Your task to perform on an android device: Go to network settings Image 0: 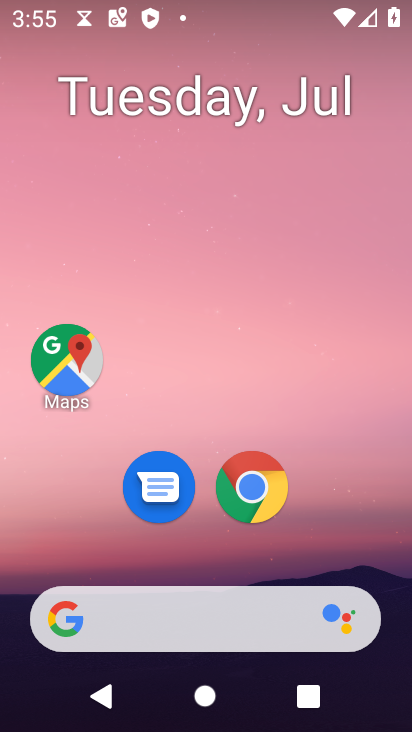
Step 0: drag from (175, 556) to (280, 44)
Your task to perform on an android device: Go to network settings Image 1: 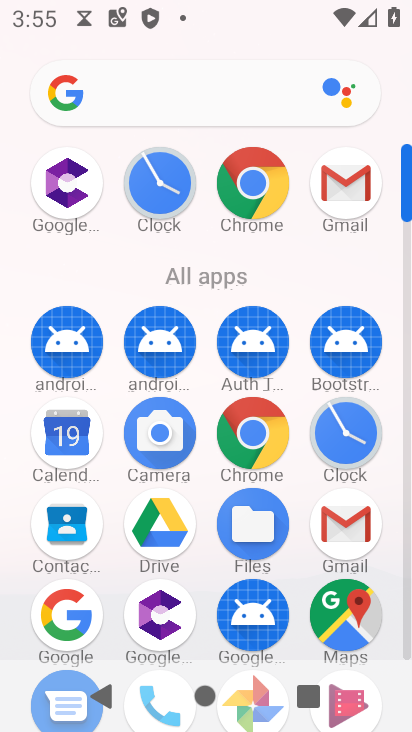
Step 1: drag from (184, 593) to (267, 135)
Your task to perform on an android device: Go to network settings Image 2: 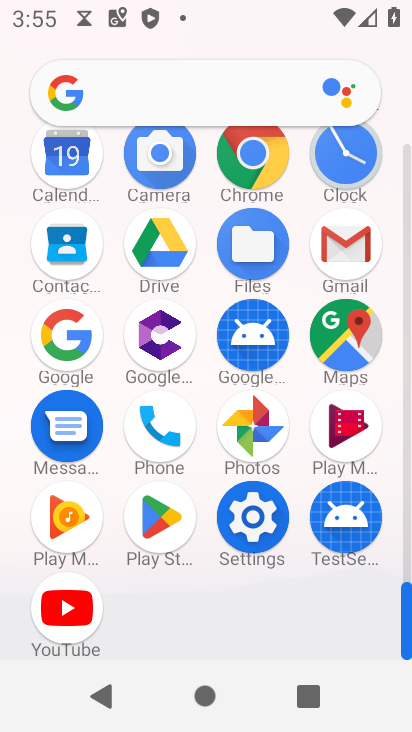
Step 2: click (248, 523)
Your task to perform on an android device: Go to network settings Image 3: 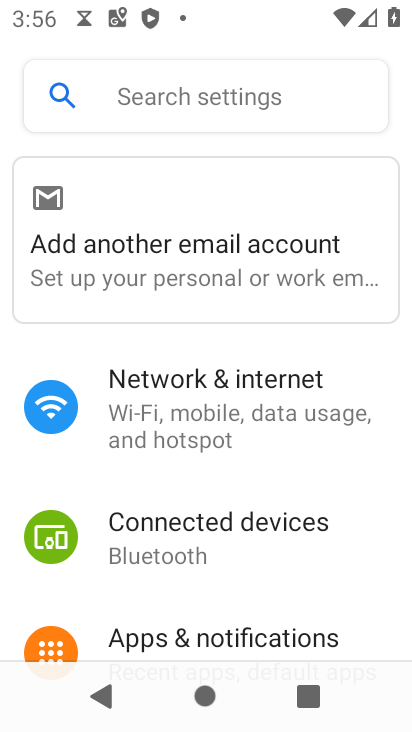
Step 3: click (202, 405)
Your task to perform on an android device: Go to network settings Image 4: 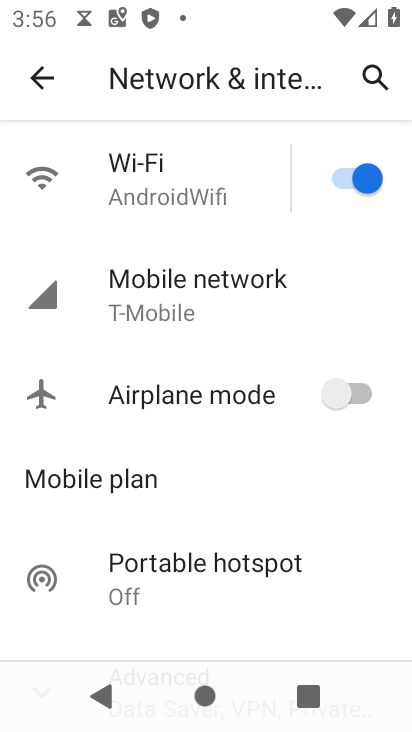
Step 4: task complete